Your task to perform on an android device: open a bookmark in the chrome app Image 0: 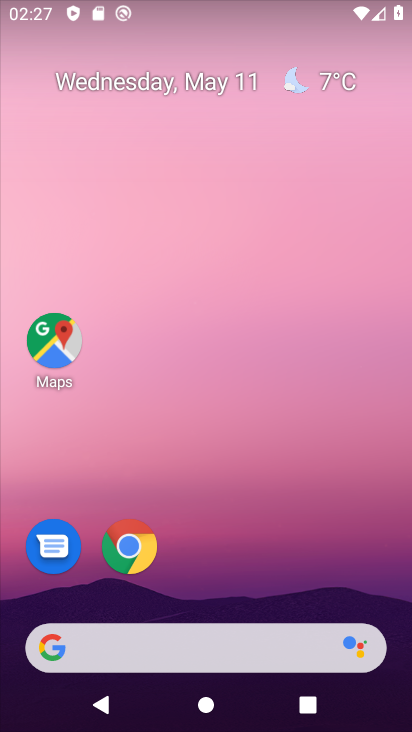
Step 0: click (134, 559)
Your task to perform on an android device: open a bookmark in the chrome app Image 1: 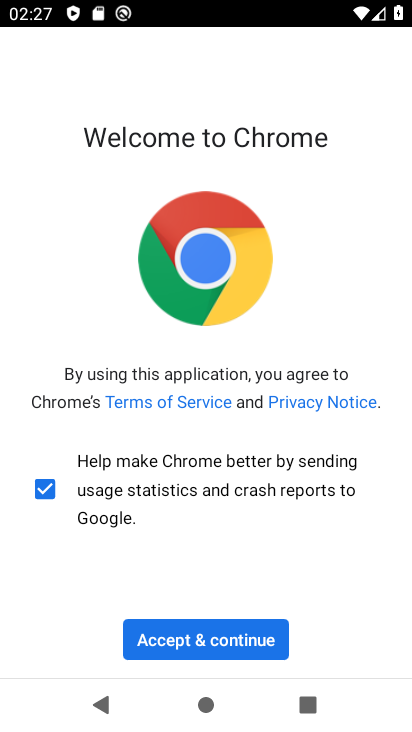
Step 1: click (207, 645)
Your task to perform on an android device: open a bookmark in the chrome app Image 2: 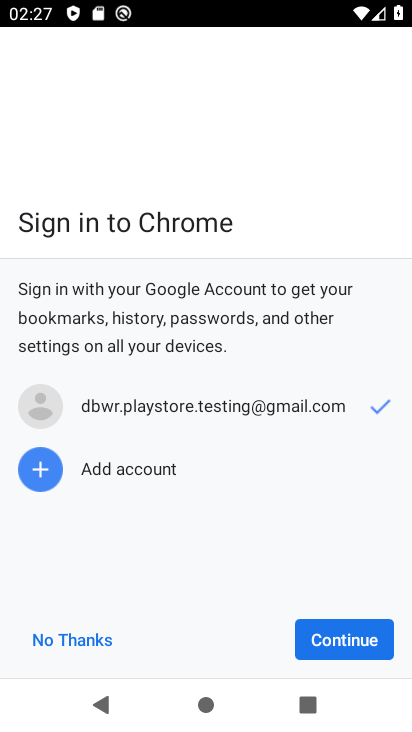
Step 2: click (362, 644)
Your task to perform on an android device: open a bookmark in the chrome app Image 3: 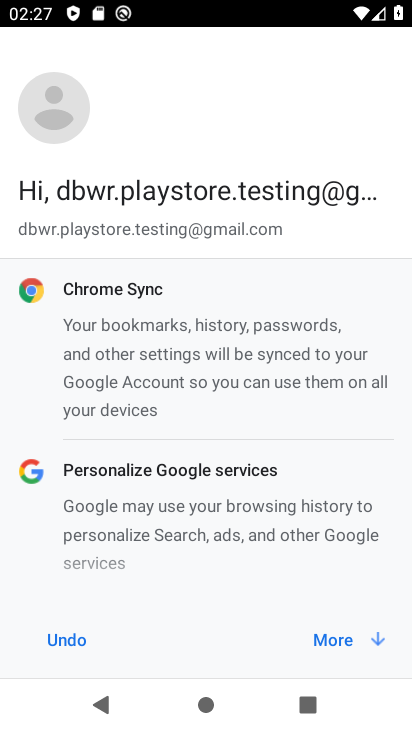
Step 3: click (321, 649)
Your task to perform on an android device: open a bookmark in the chrome app Image 4: 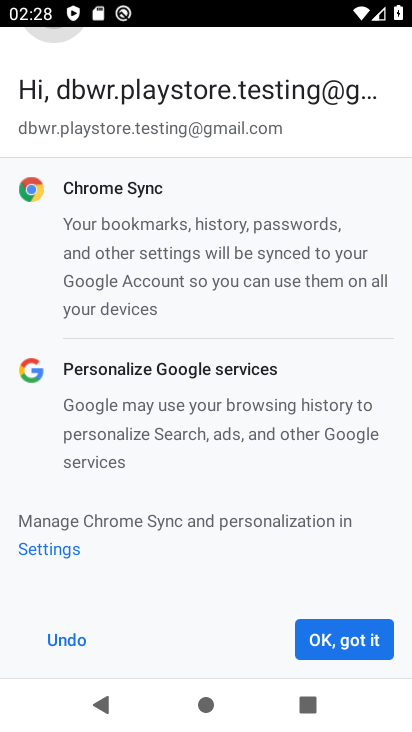
Step 4: click (349, 642)
Your task to perform on an android device: open a bookmark in the chrome app Image 5: 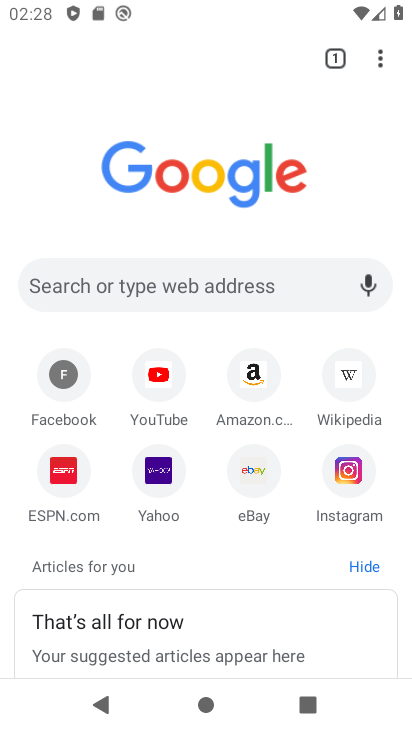
Step 5: task complete